Your task to perform on an android device: Is it going to rain tomorrow? Image 0: 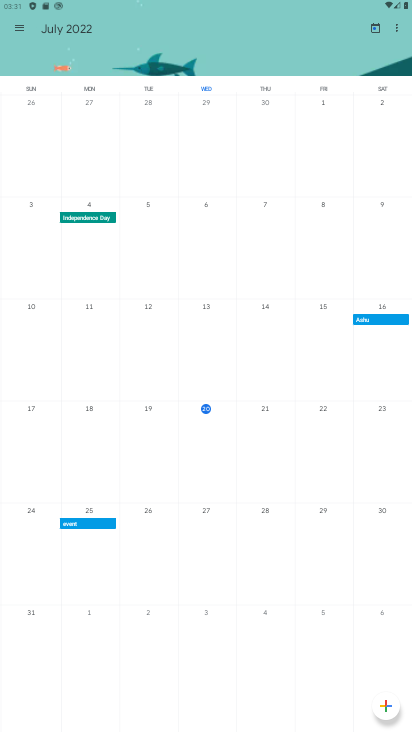
Step 0: press home button
Your task to perform on an android device: Is it going to rain tomorrow? Image 1: 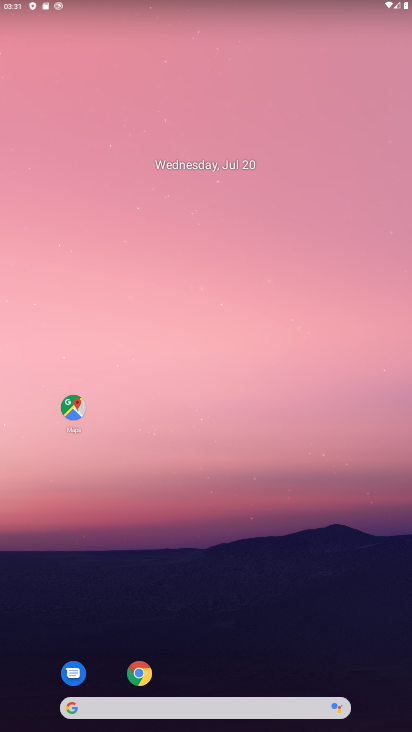
Step 1: click (135, 671)
Your task to perform on an android device: Is it going to rain tomorrow? Image 2: 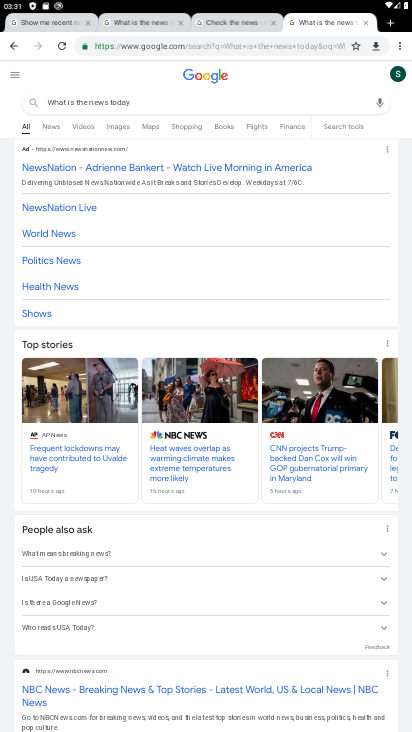
Step 2: click (365, 25)
Your task to perform on an android device: Is it going to rain tomorrow? Image 3: 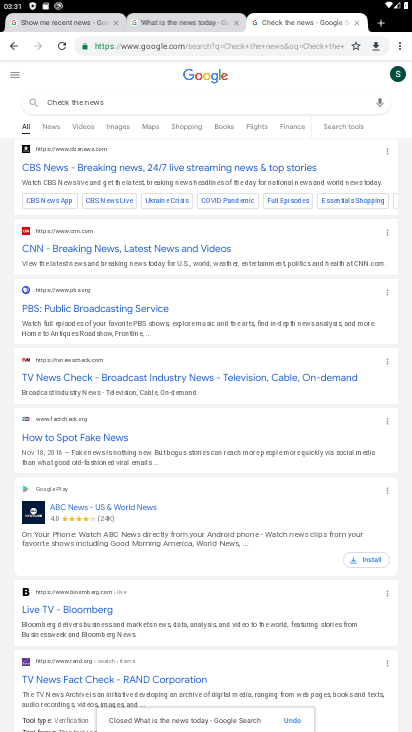
Step 3: click (389, 24)
Your task to perform on an android device: Is it going to rain tomorrow? Image 4: 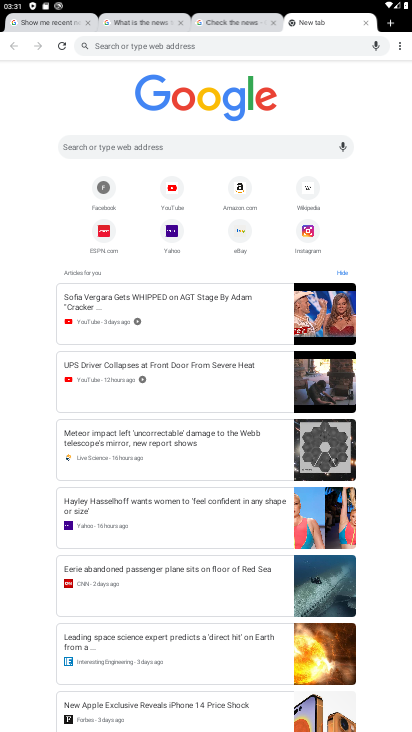
Step 4: click (158, 133)
Your task to perform on an android device: Is it going to rain tomorrow? Image 5: 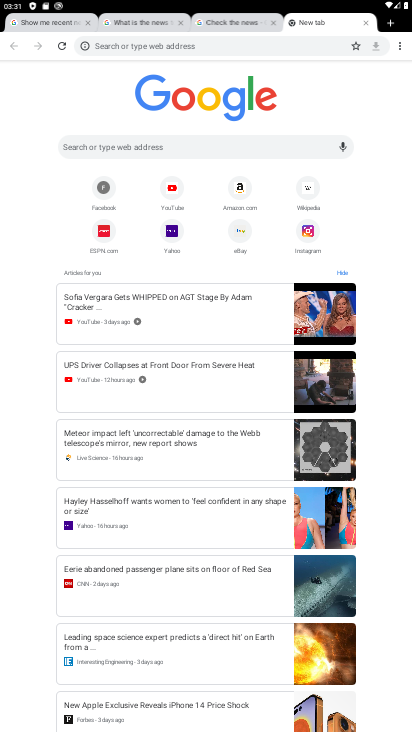
Step 5: type "Is it going to rain tomorrow "
Your task to perform on an android device: Is it going to rain tomorrow? Image 6: 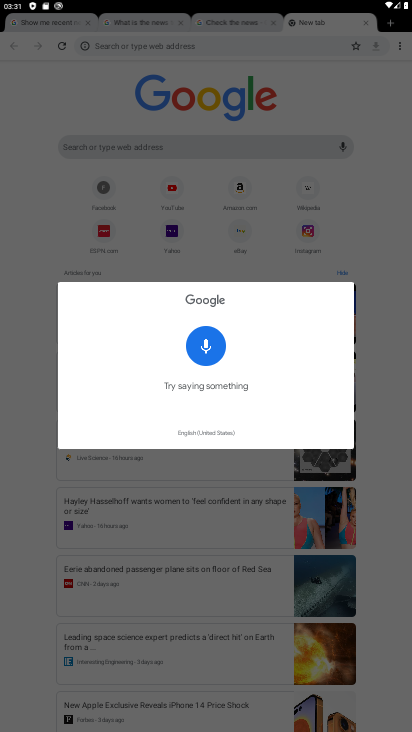
Step 6: click (20, 216)
Your task to perform on an android device: Is it going to rain tomorrow? Image 7: 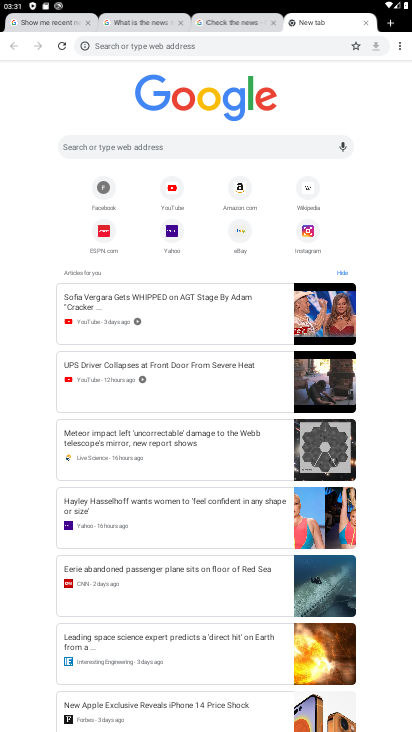
Step 7: click (208, 42)
Your task to perform on an android device: Is it going to rain tomorrow? Image 8: 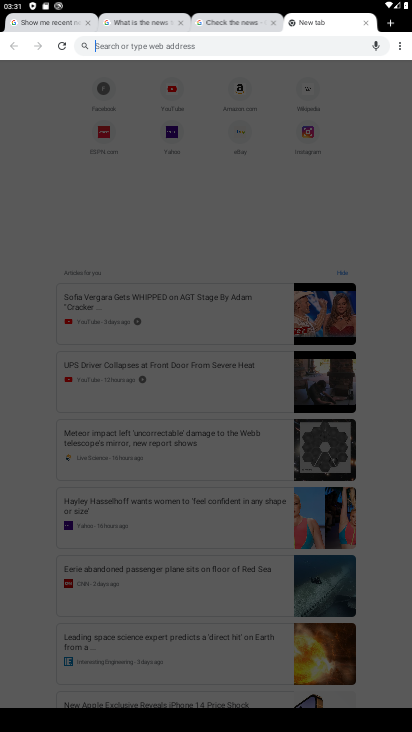
Step 8: type "Is it going to rain tomorrow "
Your task to perform on an android device: Is it going to rain tomorrow? Image 9: 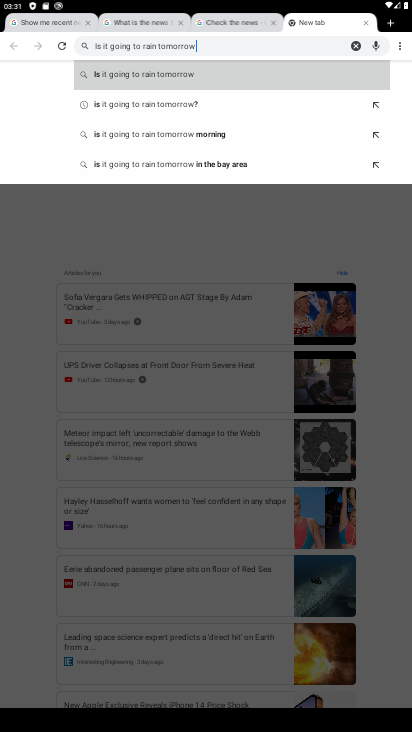
Step 9: click (181, 71)
Your task to perform on an android device: Is it going to rain tomorrow? Image 10: 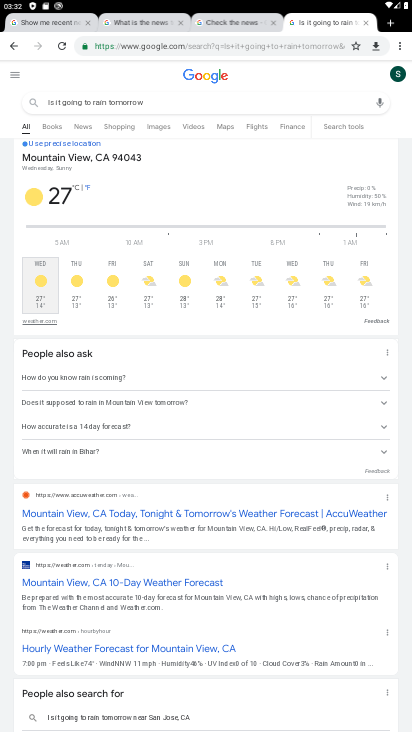
Step 10: task complete